Your task to perform on an android device: change the clock style Image 0: 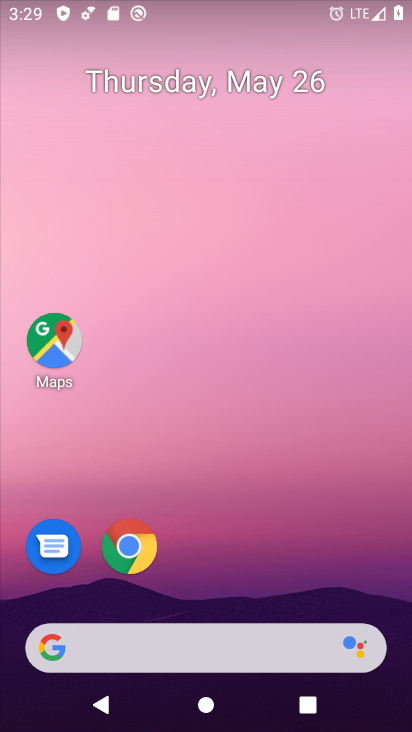
Step 0: drag from (251, 520) to (281, 24)
Your task to perform on an android device: change the clock style Image 1: 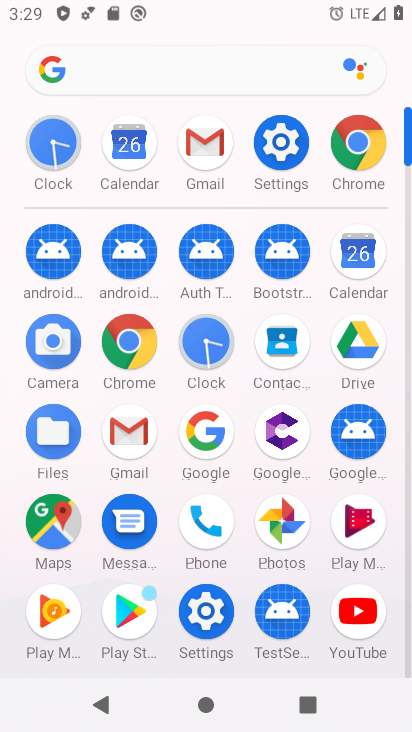
Step 1: click (212, 328)
Your task to perform on an android device: change the clock style Image 2: 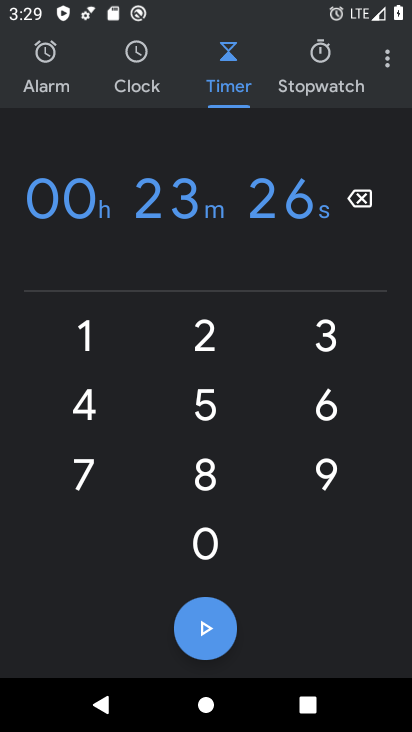
Step 2: click (382, 56)
Your task to perform on an android device: change the clock style Image 3: 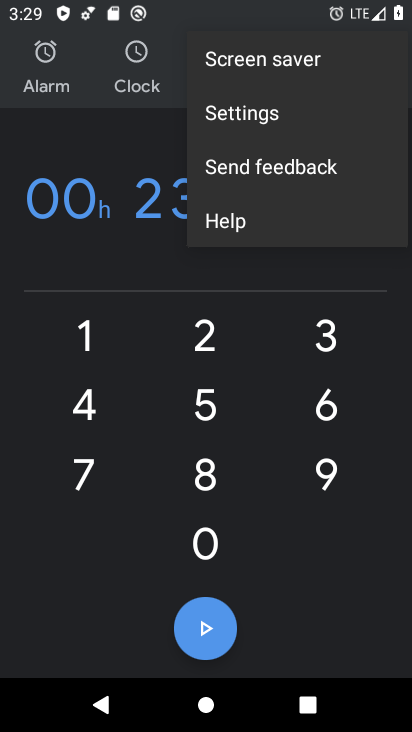
Step 3: click (263, 120)
Your task to perform on an android device: change the clock style Image 4: 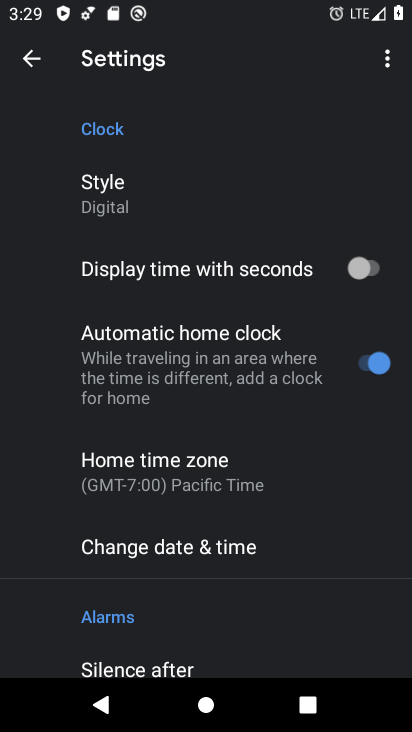
Step 4: click (137, 190)
Your task to perform on an android device: change the clock style Image 5: 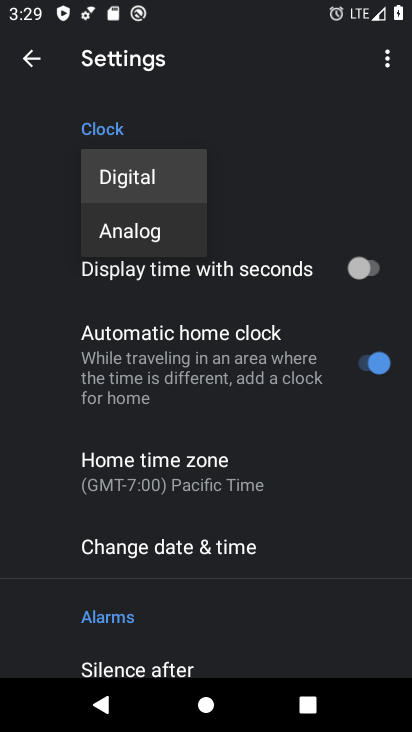
Step 5: click (140, 226)
Your task to perform on an android device: change the clock style Image 6: 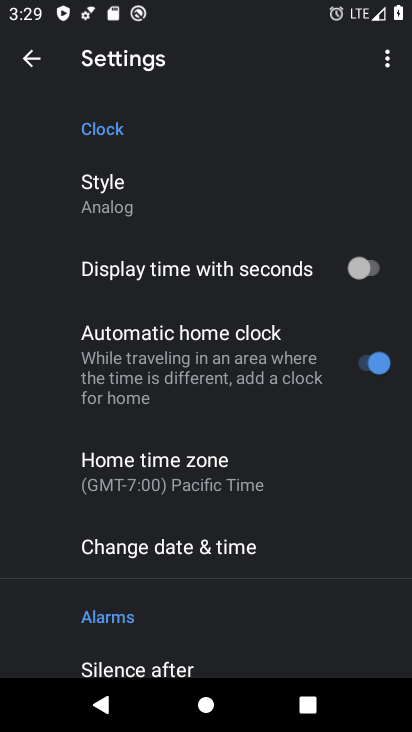
Step 6: task complete